Your task to perform on an android device: Open CNN.com Image 0: 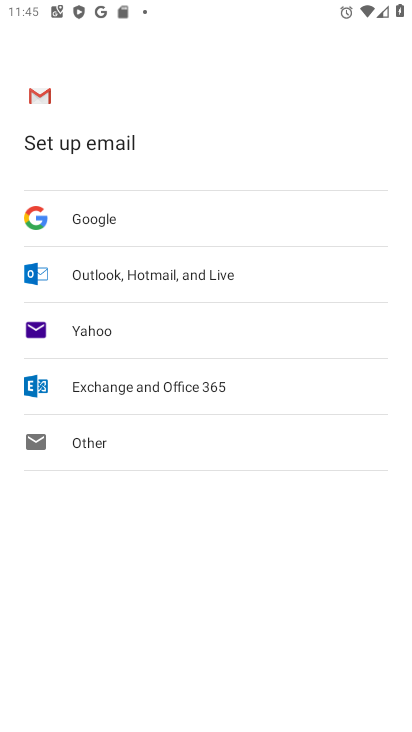
Step 0: press home button
Your task to perform on an android device: Open CNN.com Image 1: 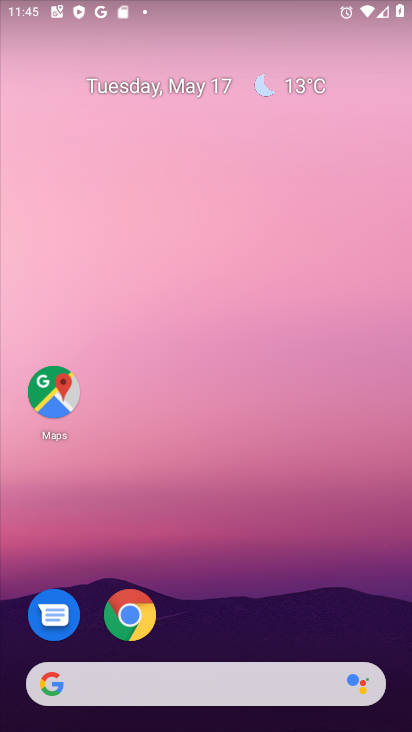
Step 1: click (136, 626)
Your task to perform on an android device: Open CNN.com Image 2: 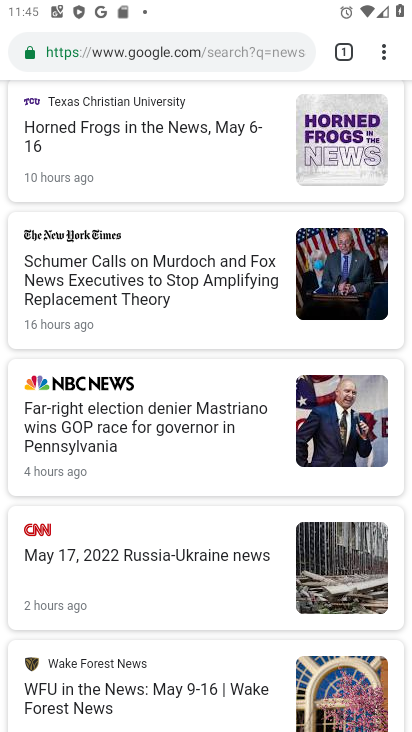
Step 2: click (193, 54)
Your task to perform on an android device: Open CNN.com Image 3: 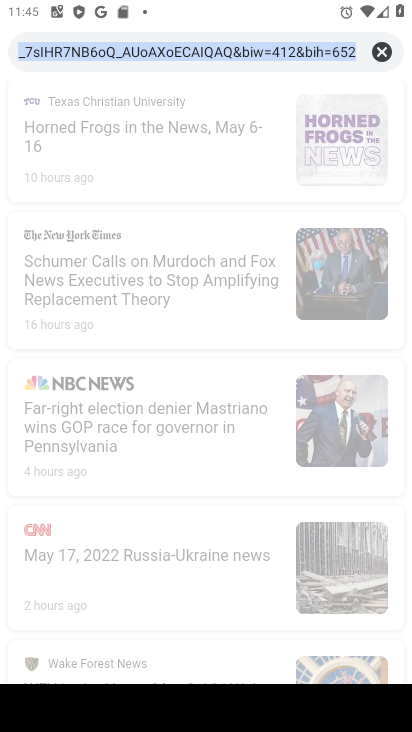
Step 3: type ""
Your task to perform on an android device: Open CNN.com Image 4: 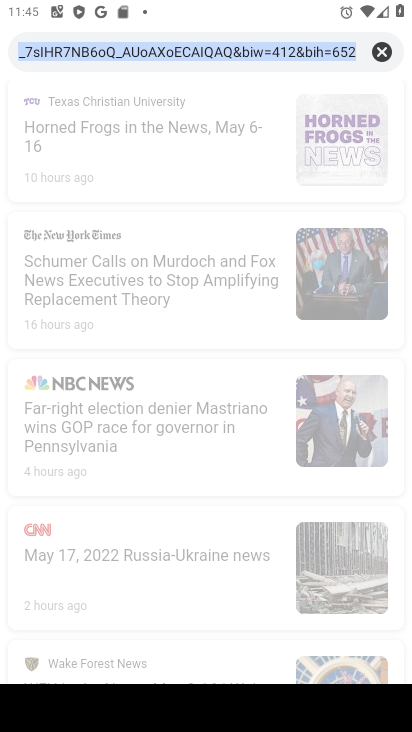
Step 4: type "cnn.com"
Your task to perform on an android device: Open CNN.com Image 5: 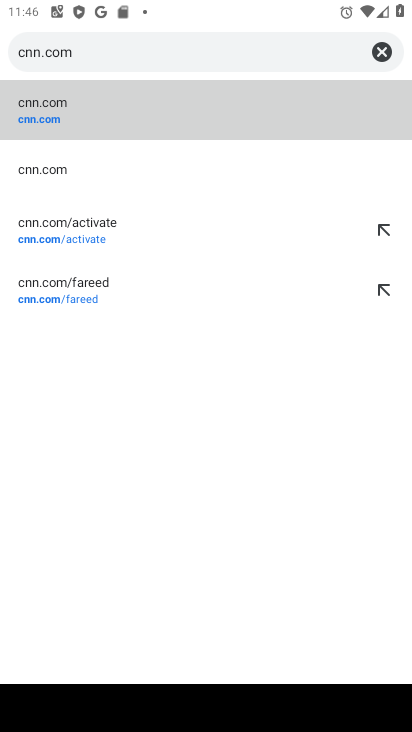
Step 5: click (38, 114)
Your task to perform on an android device: Open CNN.com Image 6: 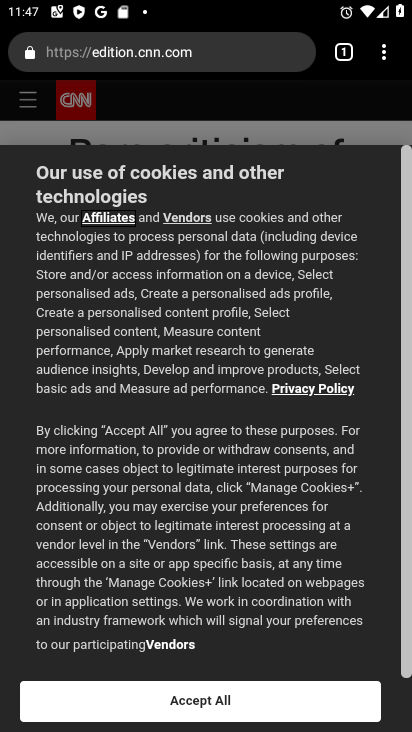
Step 6: task complete